Your task to perform on an android device: Clear the shopping cart on bestbuy.com. Search for "logitech g903" on bestbuy.com, select the first entry, add it to the cart, then select checkout. Image 0: 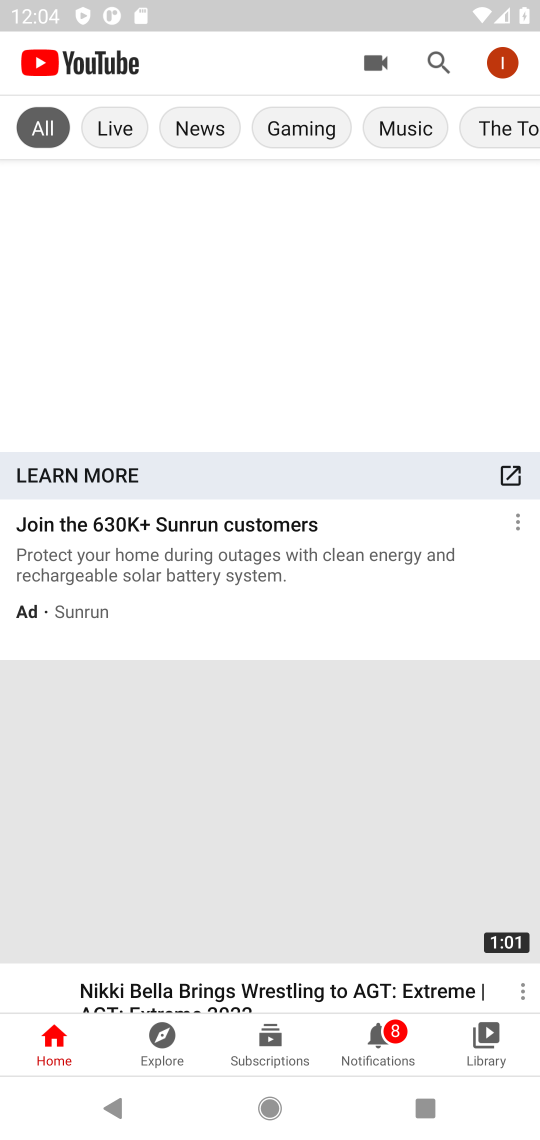
Step 0: press home button
Your task to perform on an android device: Clear the shopping cart on bestbuy.com. Search for "logitech g903" on bestbuy.com, select the first entry, add it to the cart, then select checkout. Image 1: 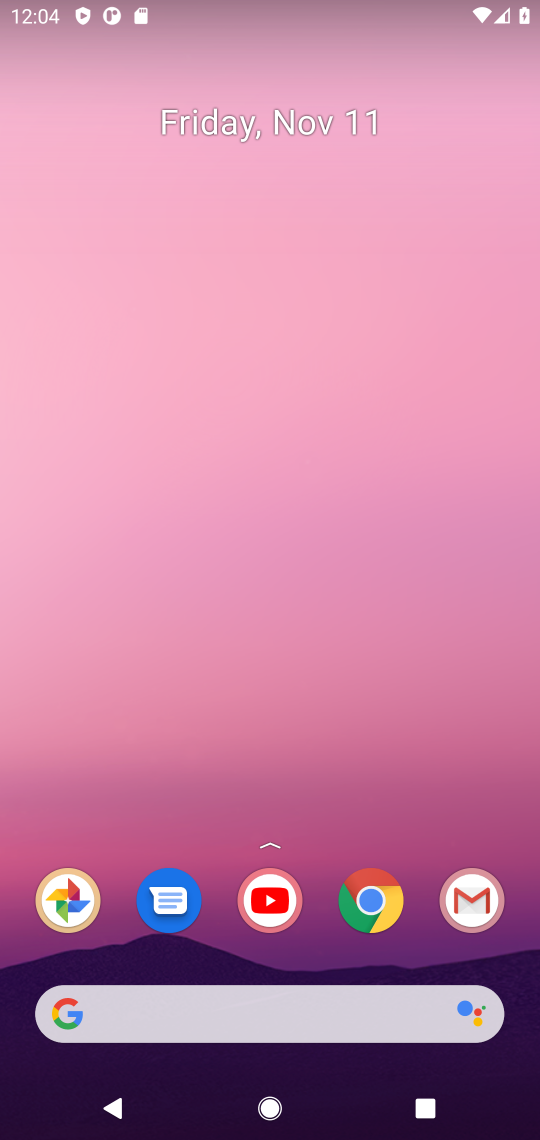
Step 1: click (374, 903)
Your task to perform on an android device: Clear the shopping cart on bestbuy.com. Search for "logitech g903" on bestbuy.com, select the first entry, add it to the cart, then select checkout. Image 2: 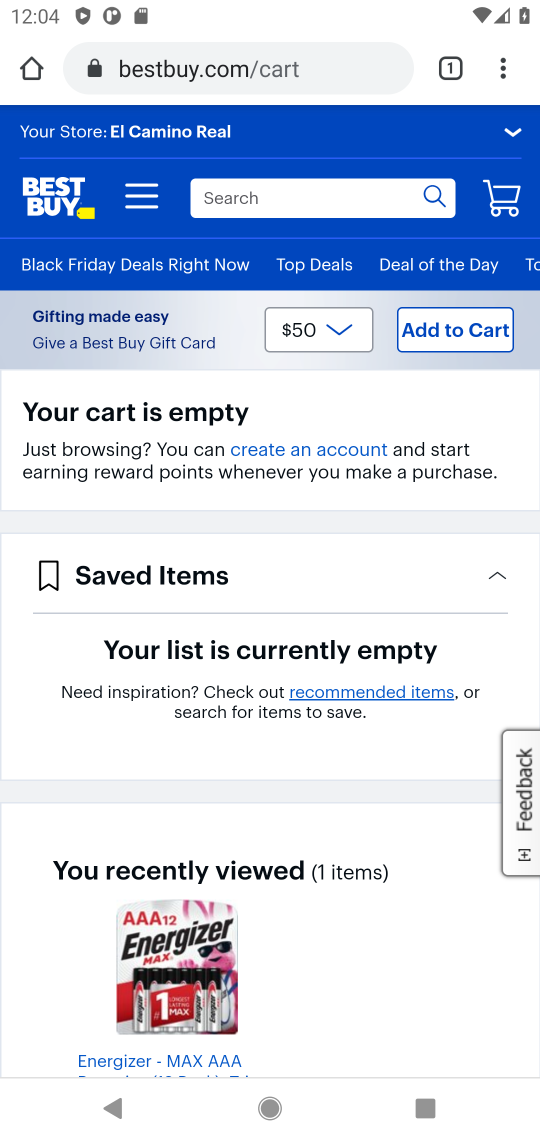
Step 2: click (282, 198)
Your task to perform on an android device: Clear the shopping cart on bestbuy.com. Search for "logitech g903" on bestbuy.com, select the first entry, add it to the cart, then select checkout. Image 3: 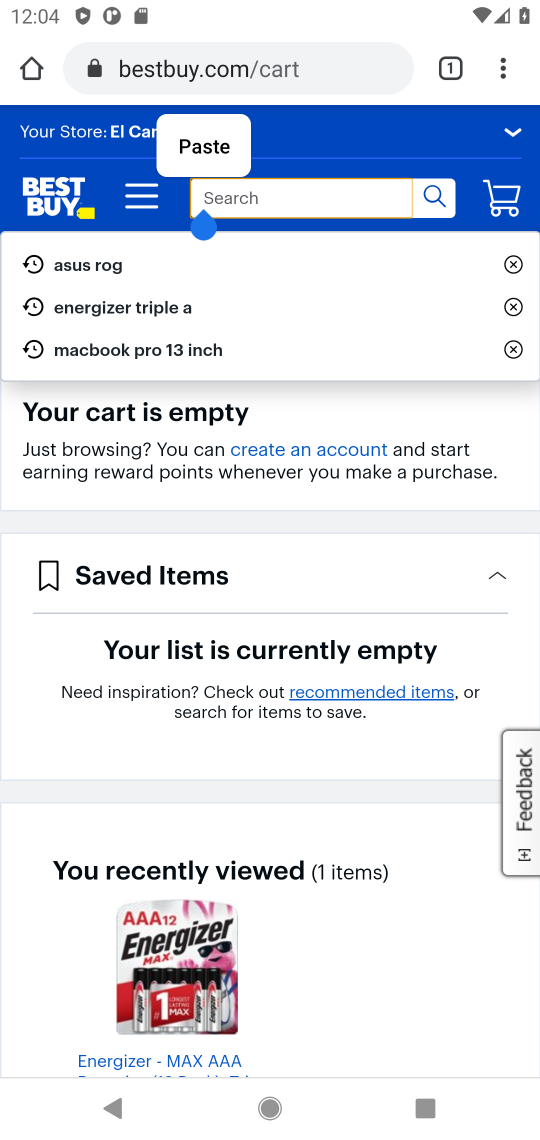
Step 3: type "logitech g903"
Your task to perform on an android device: Clear the shopping cart on bestbuy.com. Search for "logitech g903" on bestbuy.com, select the first entry, add it to the cart, then select checkout. Image 4: 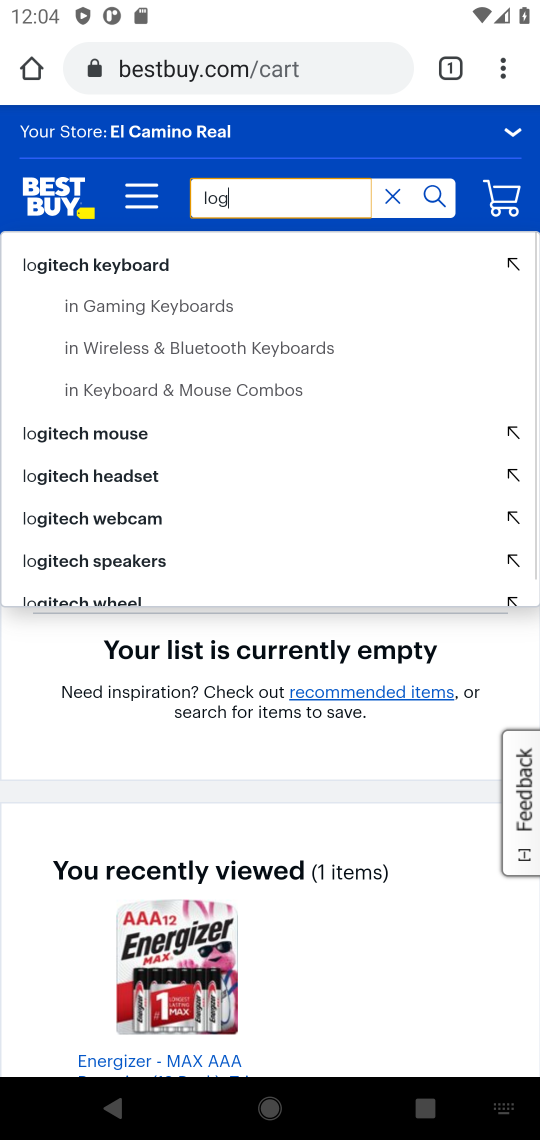
Step 4: press enter
Your task to perform on an android device: Clear the shopping cart on bestbuy.com. Search for "logitech g903" on bestbuy.com, select the first entry, add it to the cart, then select checkout. Image 5: 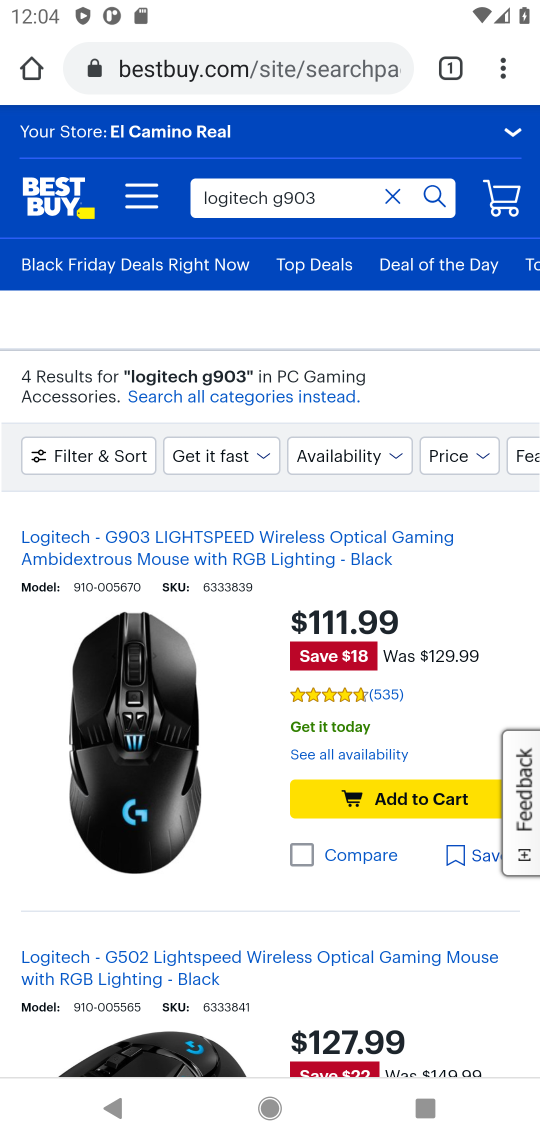
Step 5: click (434, 800)
Your task to perform on an android device: Clear the shopping cart on bestbuy.com. Search for "logitech g903" on bestbuy.com, select the first entry, add it to the cart, then select checkout. Image 6: 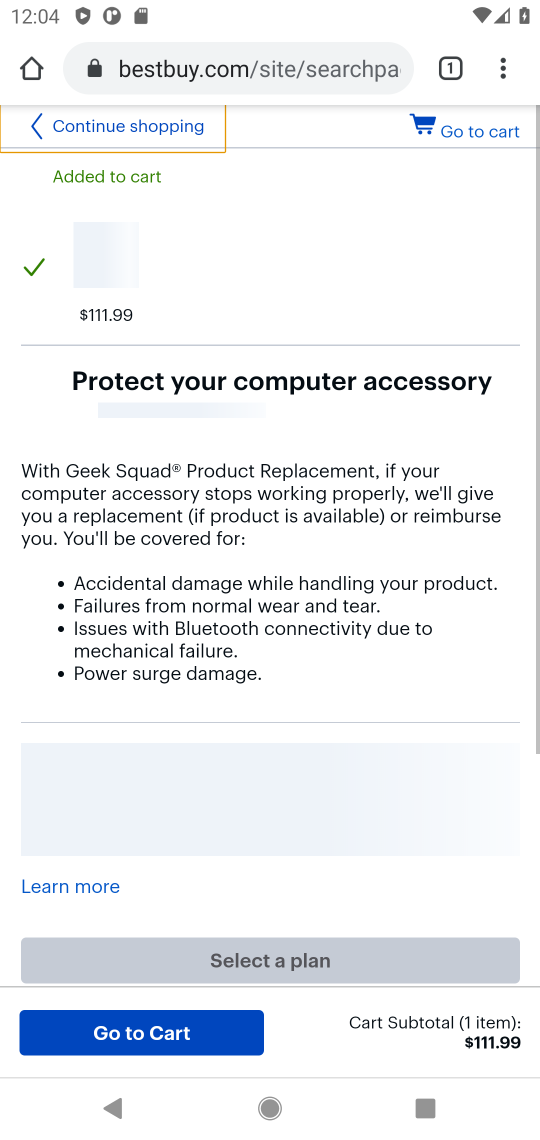
Step 6: click (495, 128)
Your task to perform on an android device: Clear the shopping cart on bestbuy.com. Search for "logitech g903" on bestbuy.com, select the first entry, add it to the cart, then select checkout. Image 7: 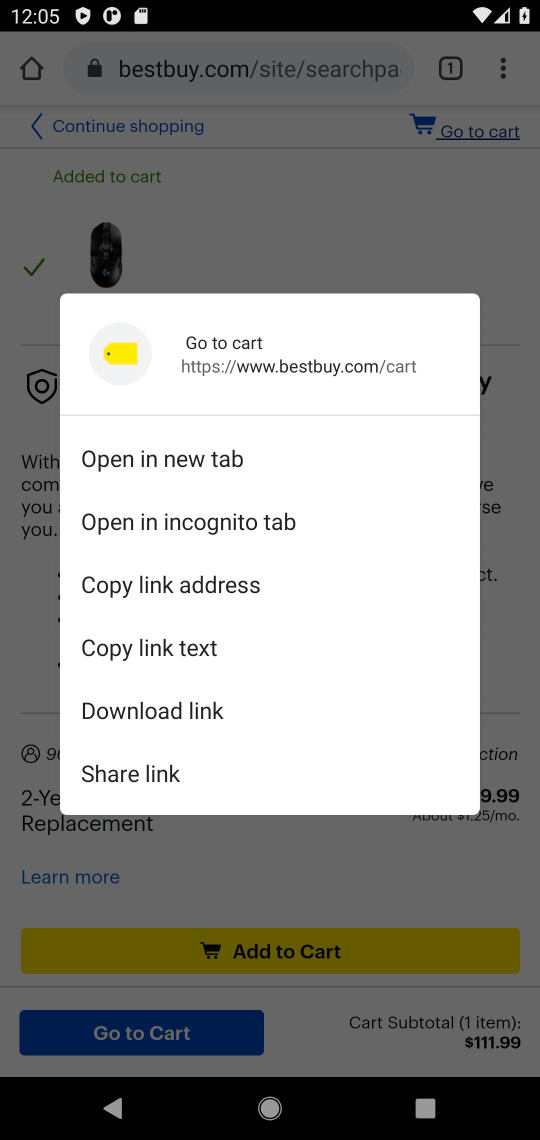
Step 7: click (464, 137)
Your task to perform on an android device: Clear the shopping cart on bestbuy.com. Search for "logitech g903" on bestbuy.com, select the first entry, add it to the cart, then select checkout. Image 8: 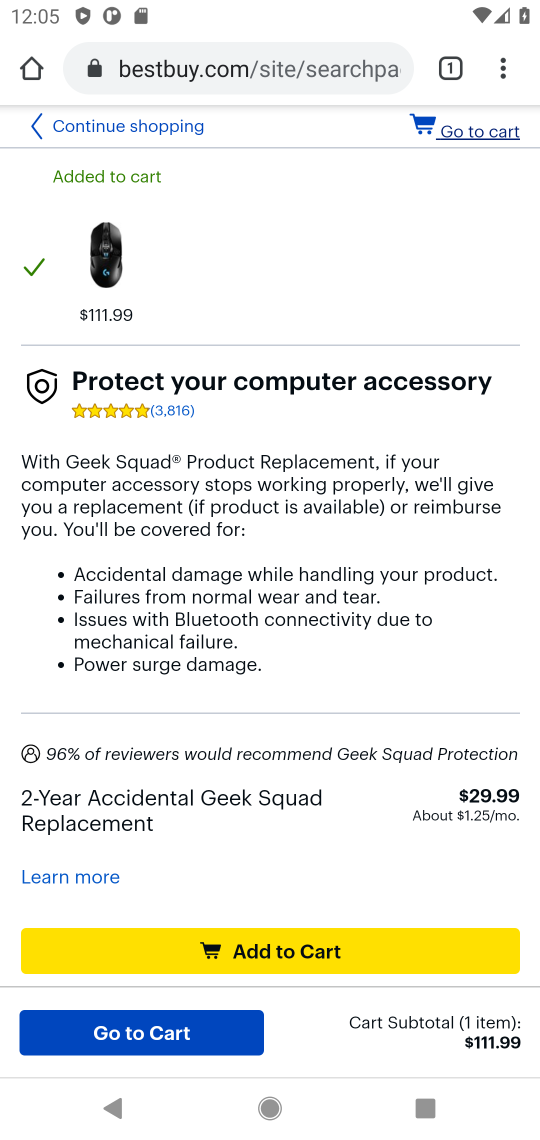
Step 8: click (474, 129)
Your task to perform on an android device: Clear the shopping cart on bestbuy.com. Search for "logitech g903" on bestbuy.com, select the first entry, add it to the cart, then select checkout. Image 9: 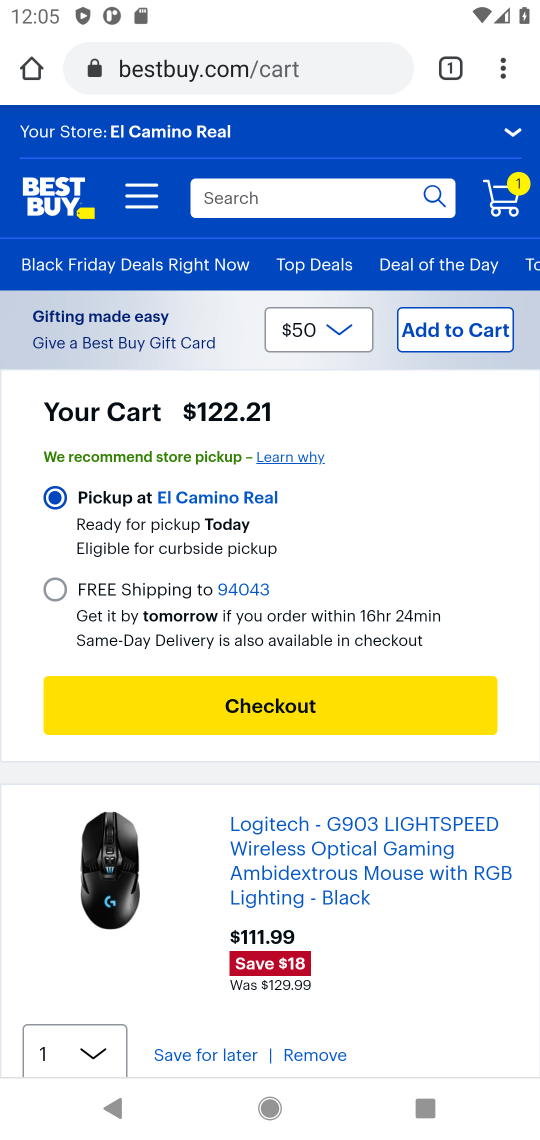
Step 9: click (299, 706)
Your task to perform on an android device: Clear the shopping cart on bestbuy.com. Search for "logitech g903" on bestbuy.com, select the first entry, add it to the cart, then select checkout. Image 10: 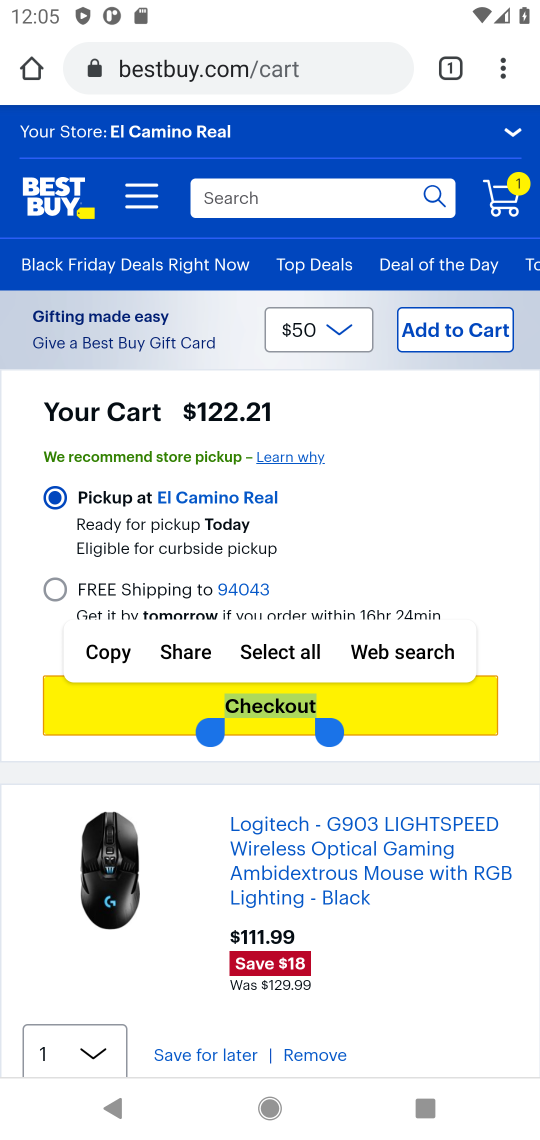
Step 10: click (277, 709)
Your task to perform on an android device: Clear the shopping cart on bestbuy.com. Search for "logitech g903" on bestbuy.com, select the first entry, add it to the cart, then select checkout. Image 11: 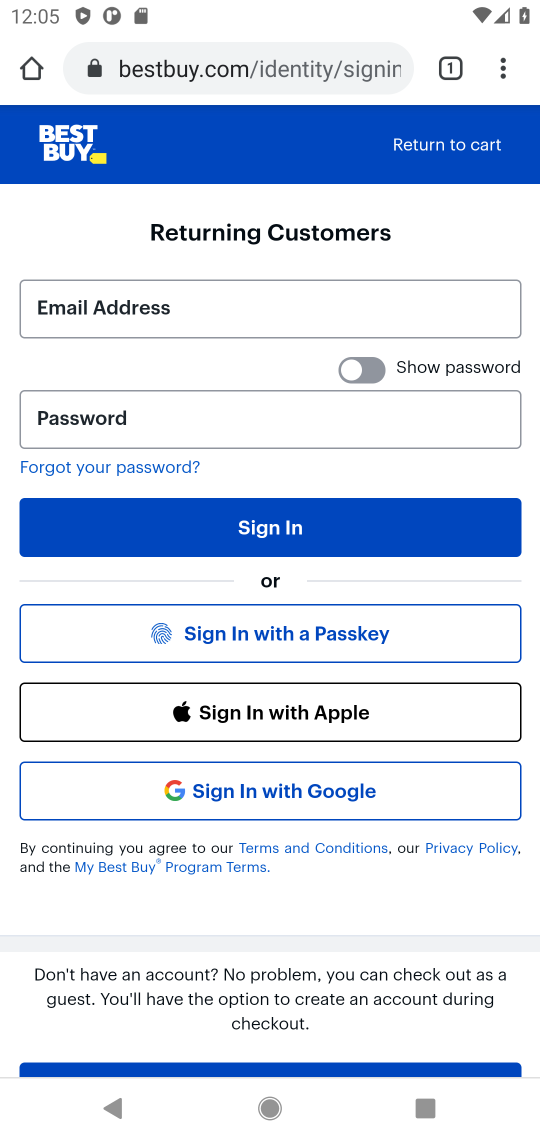
Step 11: task complete